Your task to perform on an android device: Set the phone to "Do not disturb". Image 0: 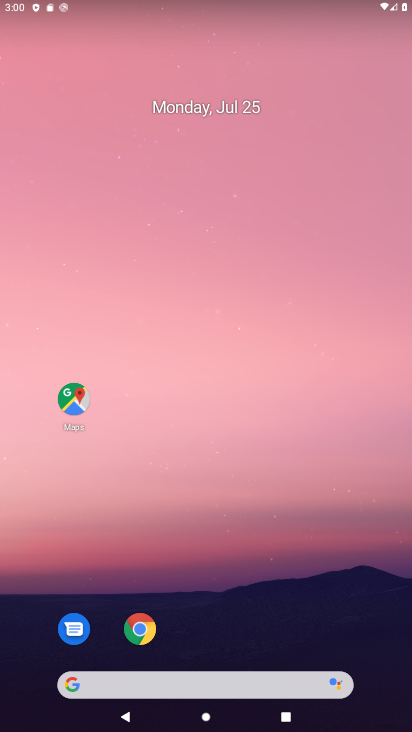
Step 0: drag from (257, 643) to (206, 59)
Your task to perform on an android device: Set the phone to "Do not disturb". Image 1: 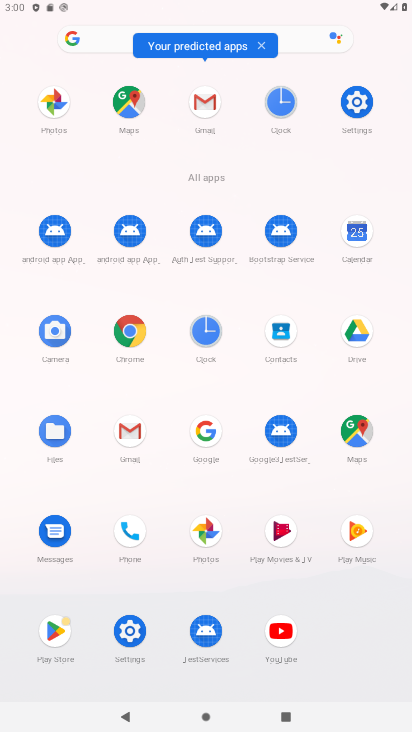
Step 1: click (355, 98)
Your task to perform on an android device: Set the phone to "Do not disturb". Image 2: 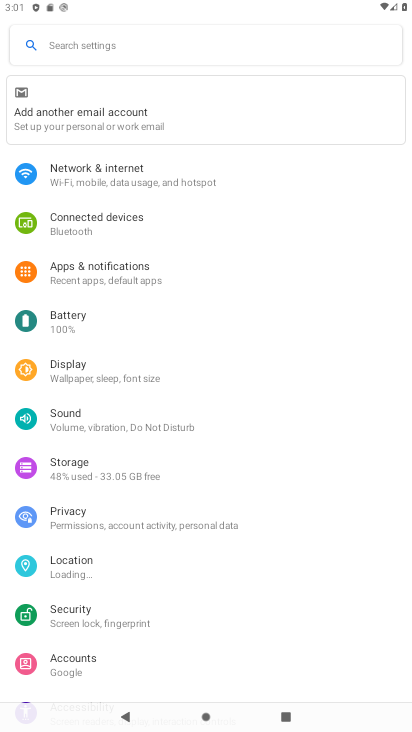
Step 2: click (116, 416)
Your task to perform on an android device: Set the phone to "Do not disturb". Image 3: 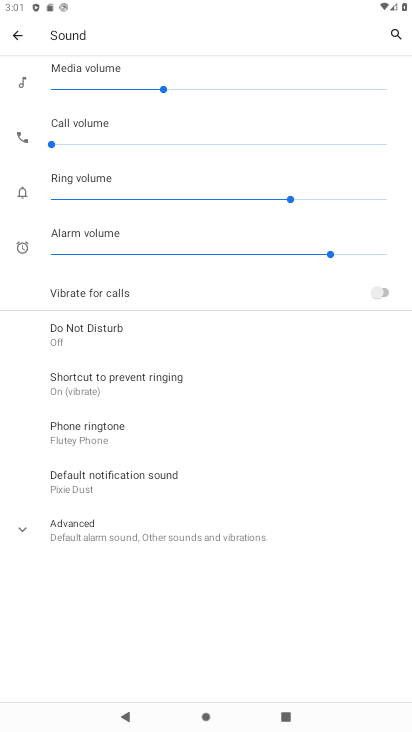
Step 3: click (212, 345)
Your task to perform on an android device: Set the phone to "Do not disturb". Image 4: 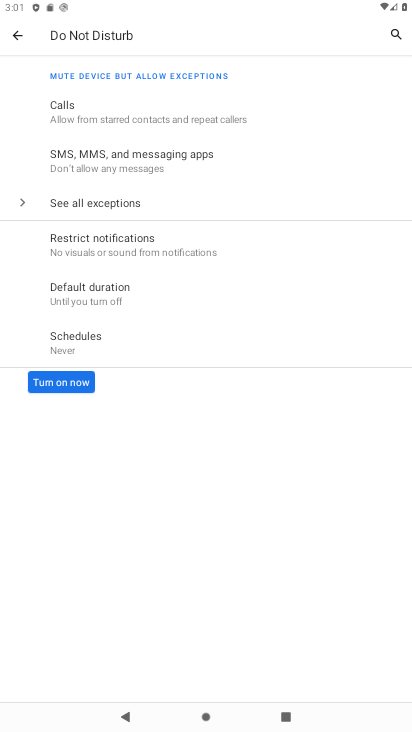
Step 4: click (76, 380)
Your task to perform on an android device: Set the phone to "Do not disturb". Image 5: 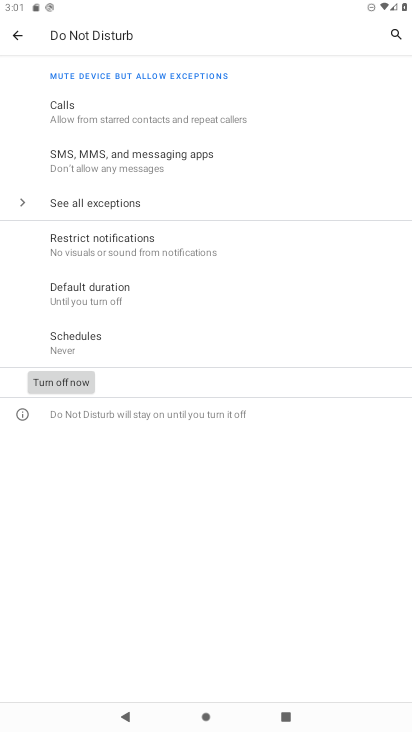
Step 5: task complete